Your task to perform on an android device: set an alarm Image 0: 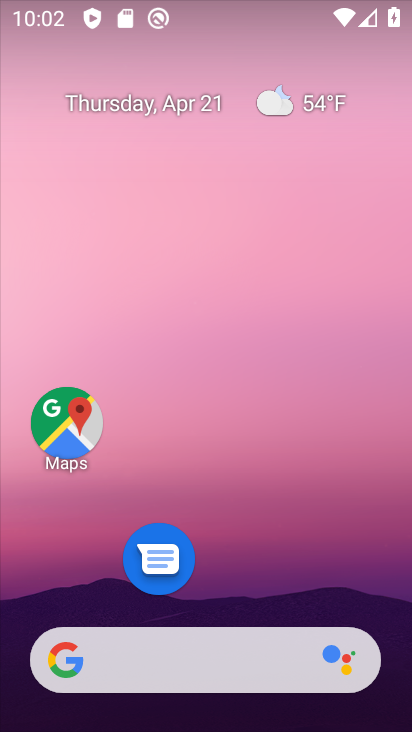
Step 0: drag from (254, 563) to (320, 55)
Your task to perform on an android device: set an alarm Image 1: 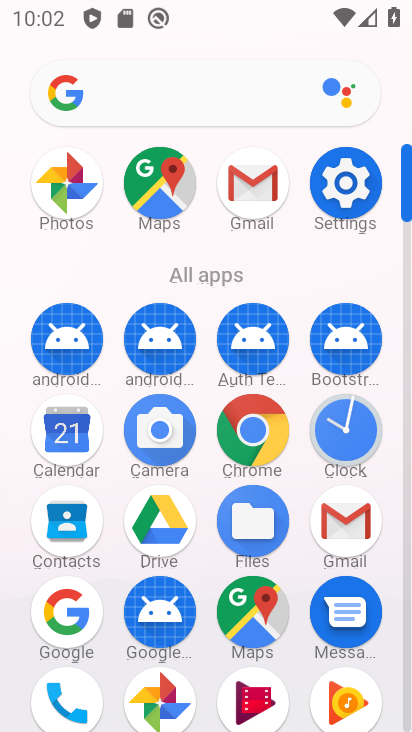
Step 1: click (350, 435)
Your task to perform on an android device: set an alarm Image 2: 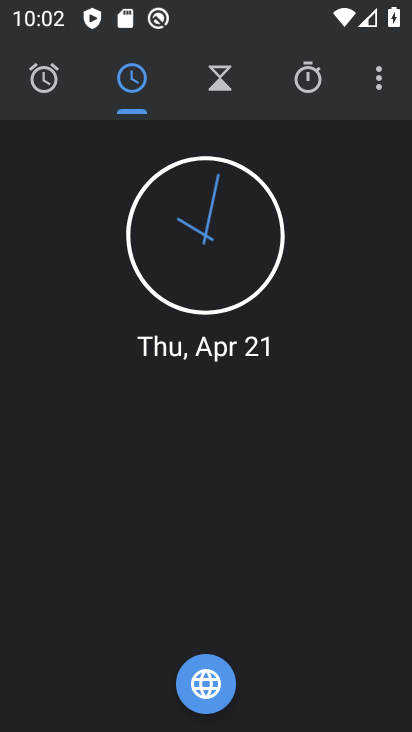
Step 2: click (42, 81)
Your task to perform on an android device: set an alarm Image 3: 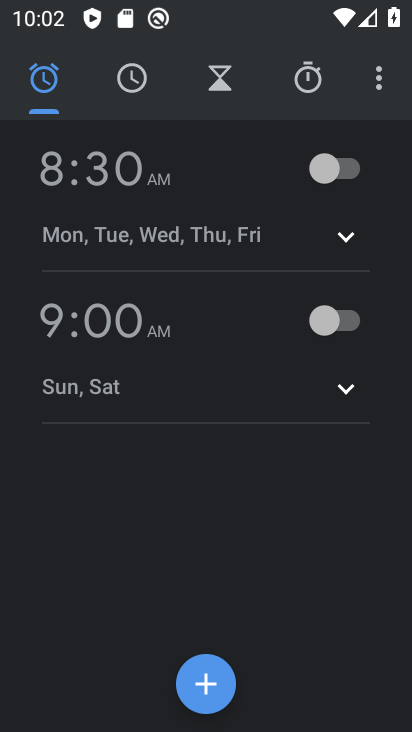
Step 3: click (334, 162)
Your task to perform on an android device: set an alarm Image 4: 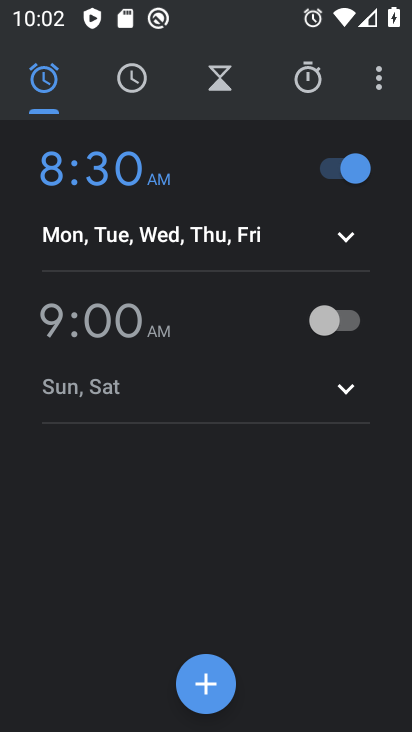
Step 4: task complete